Your task to perform on an android device: change the clock display to analog Image 0: 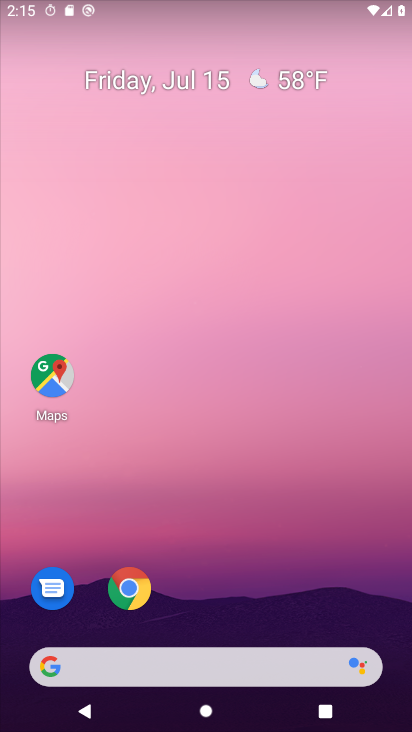
Step 0: drag from (308, 590) to (234, 79)
Your task to perform on an android device: change the clock display to analog Image 1: 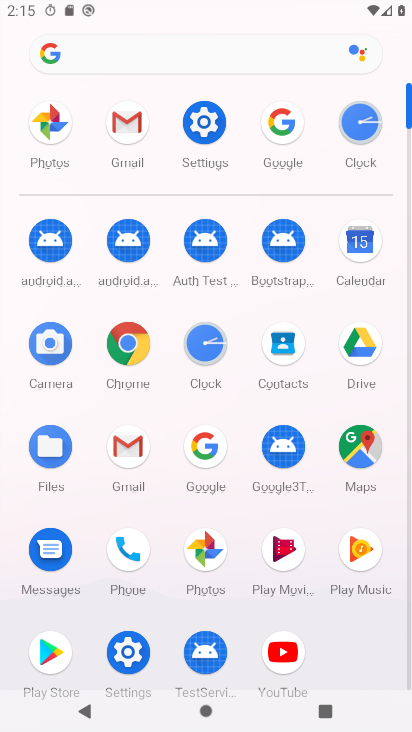
Step 1: click (208, 339)
Your task to perform on an android device: change the clock display to analog Image 2: 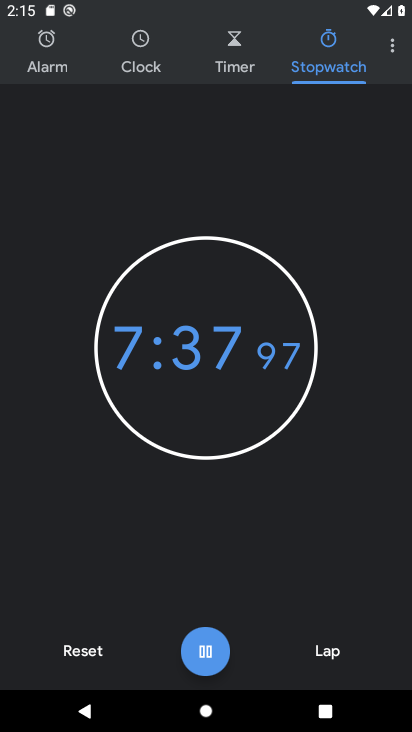
Step 2: click (394, 50)
Your task to perform on an android device: change the clock display to analog Image 3: 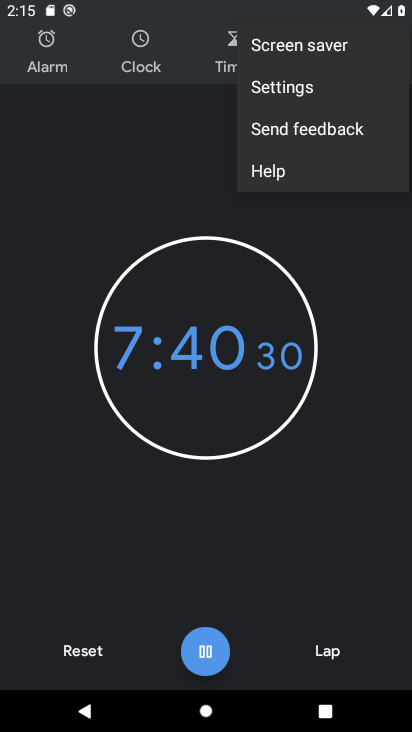
Step 3: click (272, 91)
Your task to perform on an android device: change the clock display to analog Image 4: 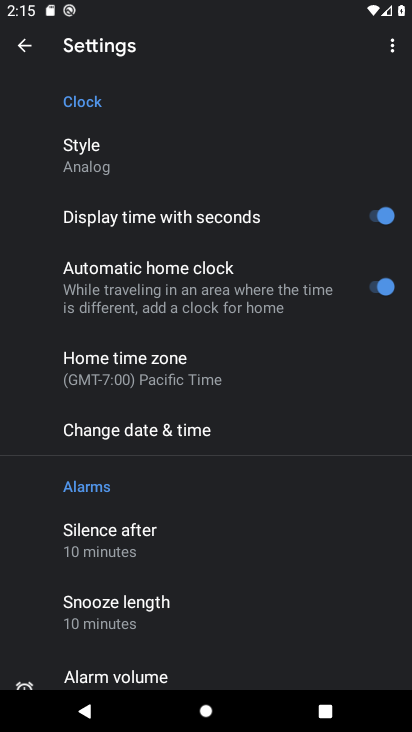
Step 4: click (112, 156)
Your task to perform on an android device: change the clock display to analog Image 5: 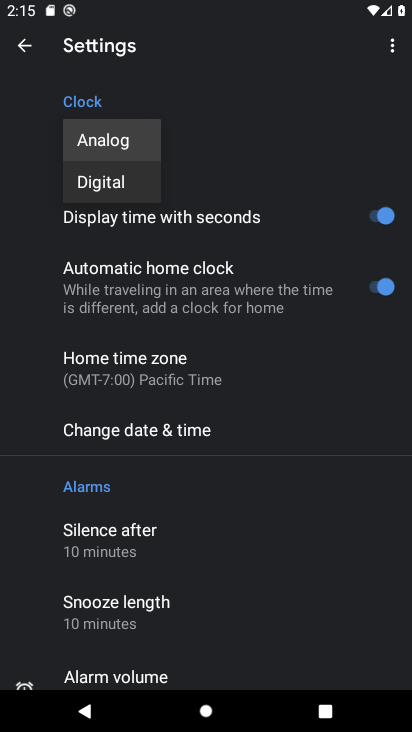
Step 5: click (118, 147)
Your task to perform on an android device: change the clock display to analog Image 6: 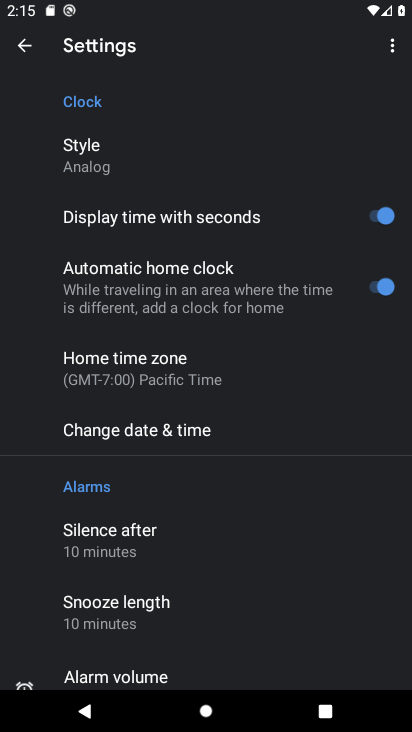
Step 6: task complete